Your task to perform on an android device: Check the weather Image 0: 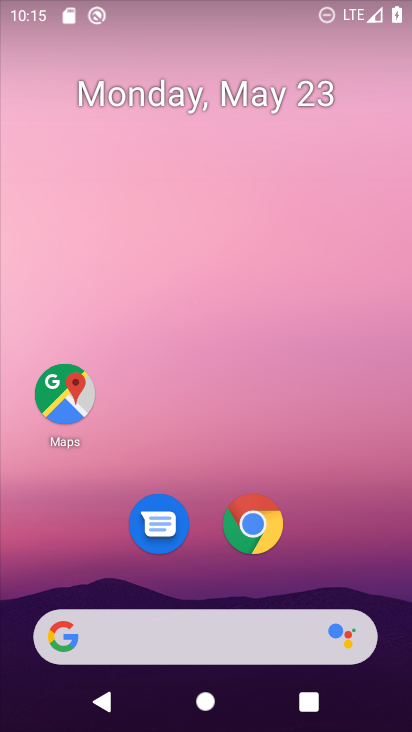
Step 0: drag from (186, 447) to (207, 11)
Your task to perform on an android device: Check the weather Image 1: 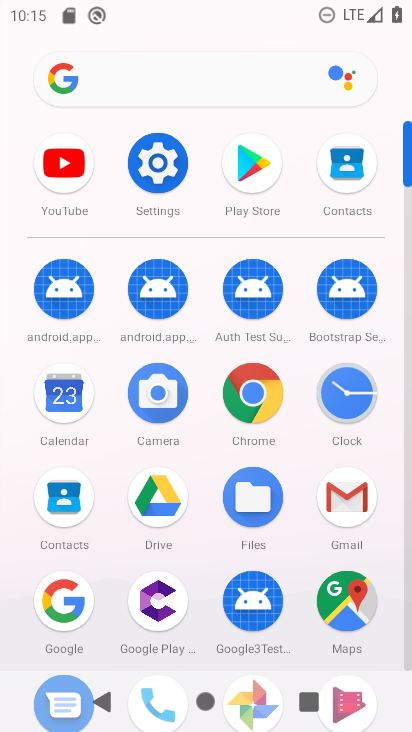
Step 1: press home button
Your task to perform on an android device: Check the weather Image 2: 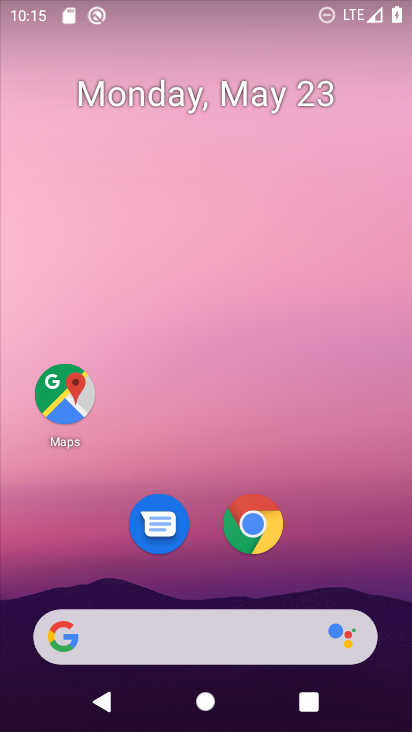
Step 2: click (169, 647)
Your task to perform on an android device: Check the weather Image 3: 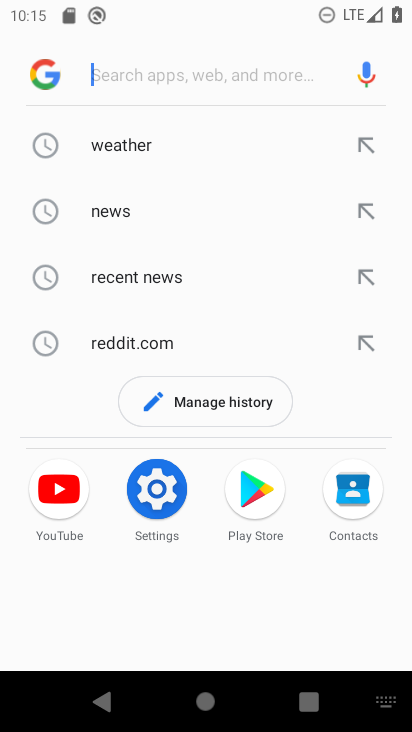
Step 3: click (111, 146)
Your task to perform on an android device: Check the weather Image 4: 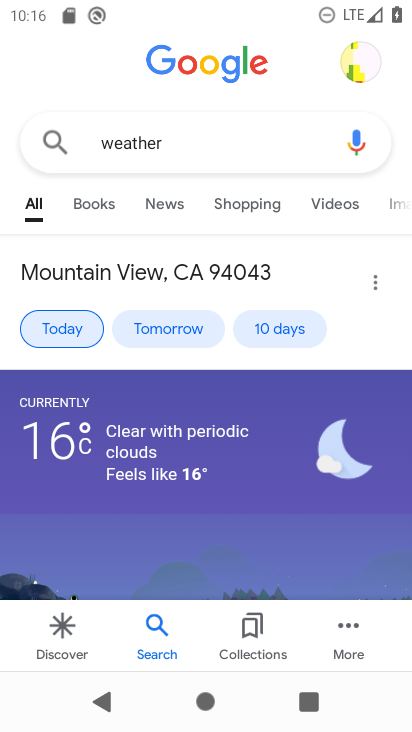
Step 4: click (62, 321)
Your task to perform on an android device: Check the weather Image 5: 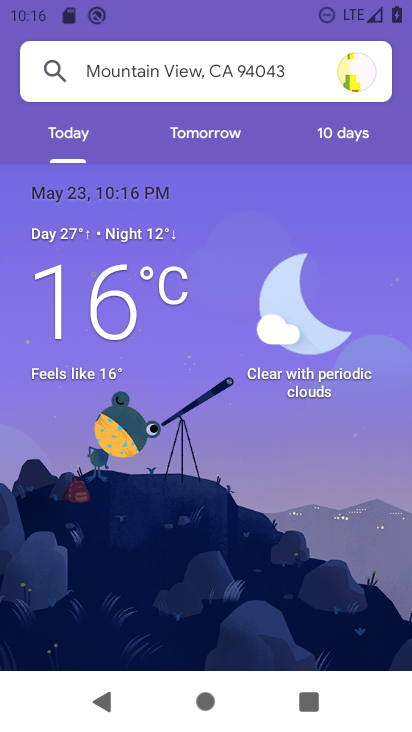
Step 5: task complete